Your task to perform on an android device: Search for Mexican restaurants on Maps Image 0: 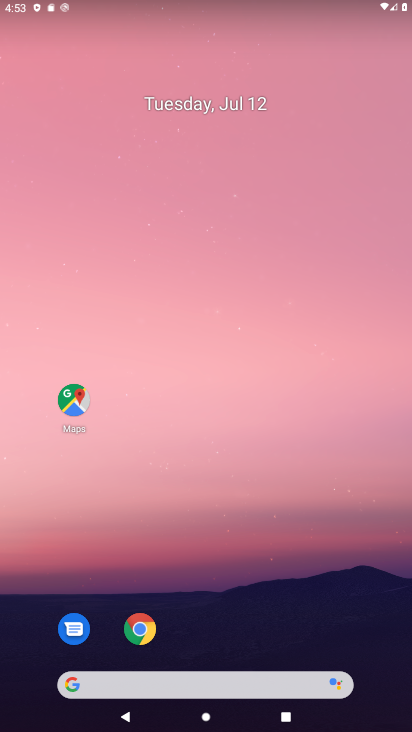
Step 0: drag from (277, 600) to (265, 205)
Your task to perform on an android device: Search for Mexican restaurants on Maps Image 1: 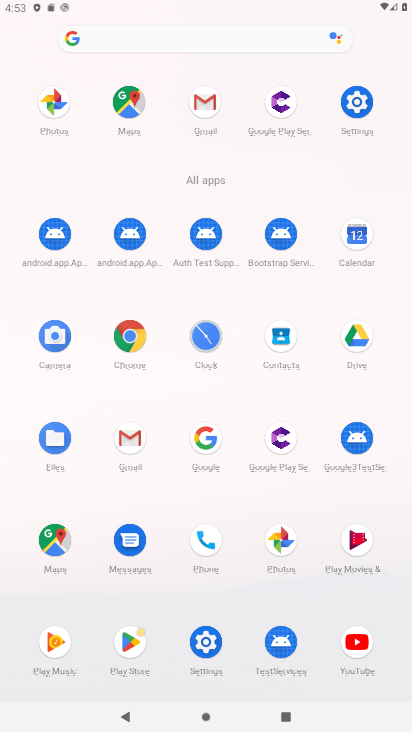
Step 1: click (52, 542)
Your task to perform on an android device: Search for Mexican restaurants on Maps Image 2: 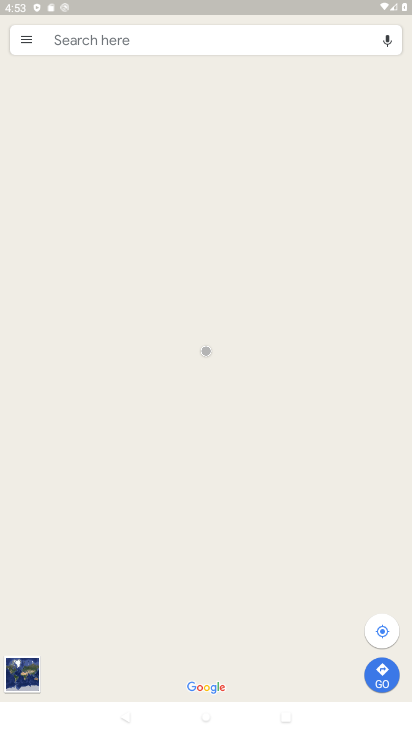
Step 2: click (83, 40)
Your task to perform on an android device: Search for Mexican restaurants on Maps Image 3: 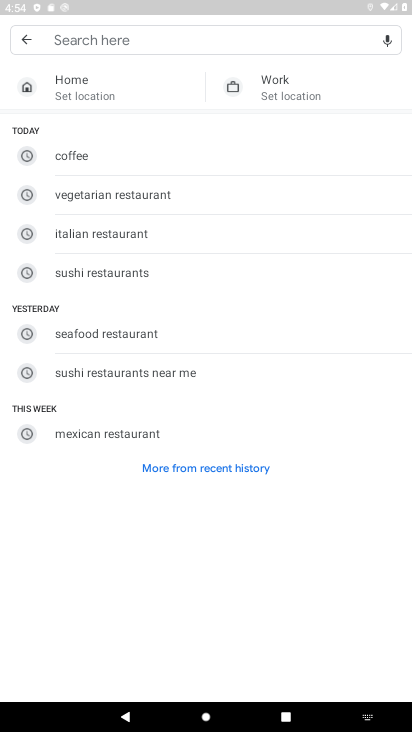
Step 3: type " Mexican restaurants "
Your task to perform on an android device: Search for Mexican restaurants on Maps Image 4: 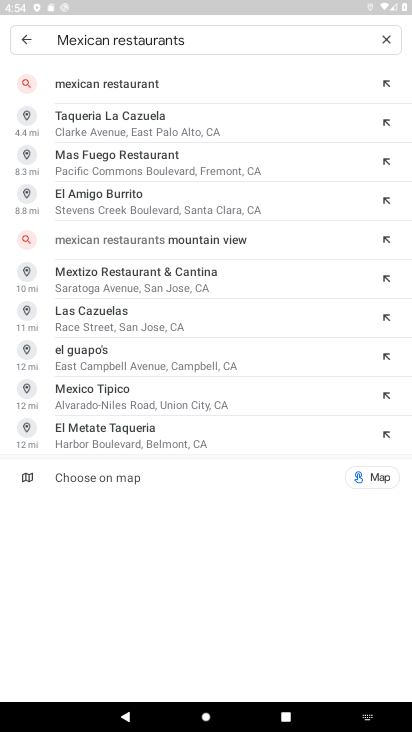
Step 4: click (81, 78)
Your task to perform on an android device: Search for Mexican restaurants on Maps Image 5: 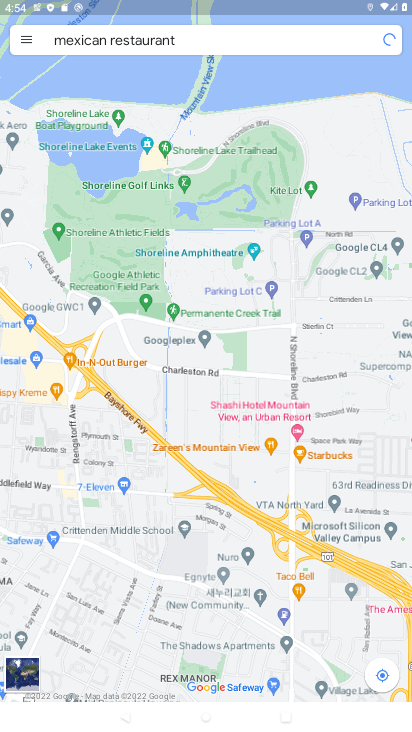
Step 5: task complete